Your task to perform on an android device: Go to location settings Image 0: 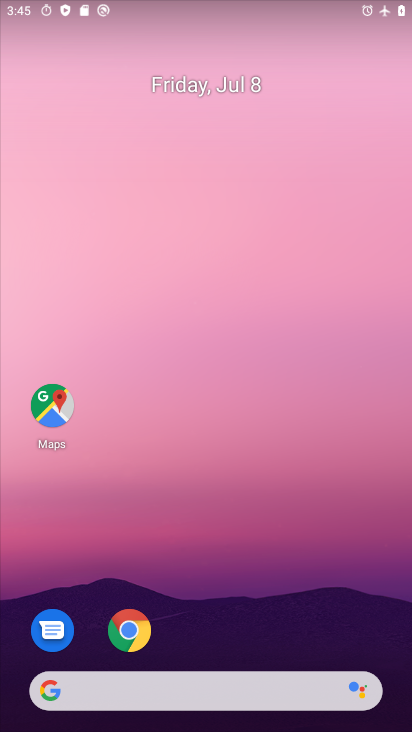
Step 0: drag from (296, 537) to (324, 200)
Your task to perform on an android device: Go to location settings Image 1: 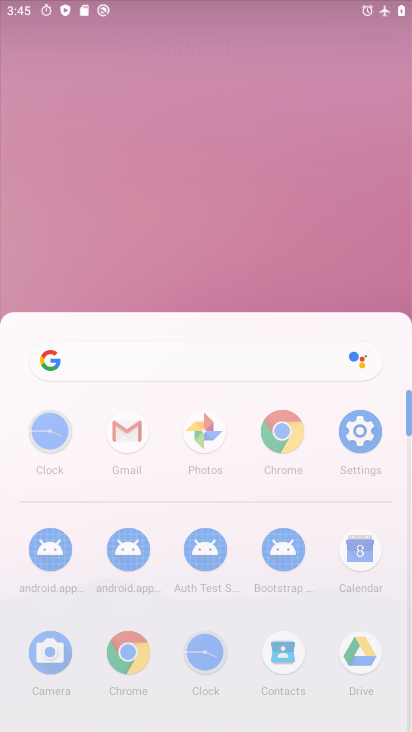
Step 1: drag from (245, 530) to (292, 296)
Your task to perform on an android device: Go to location settings Image 2: 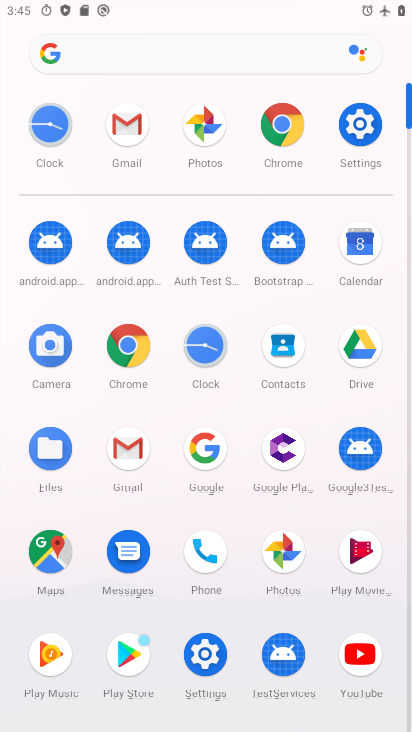
Step 2: click (363, 132)
Your task to perform on an android device: Go to location settings Image 3: 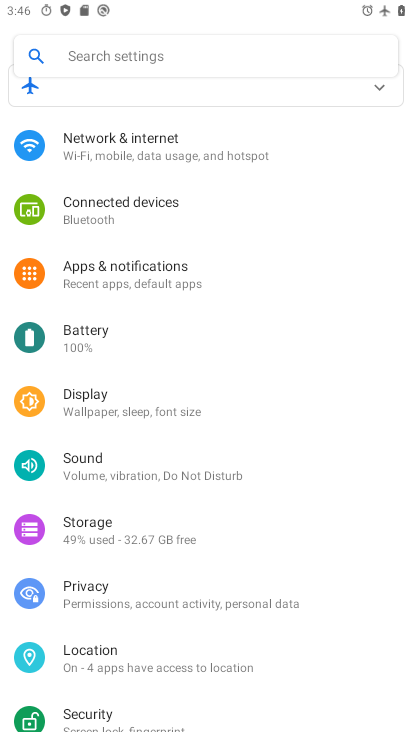
Step 3: click (107, 639)
Your task to perform on an android device: Go to location settings Image 4: 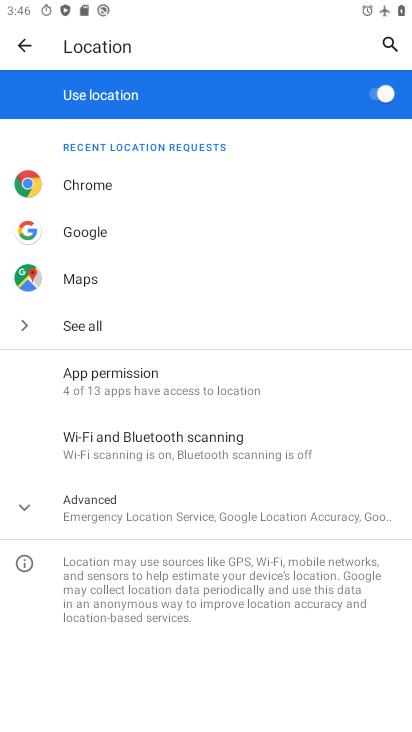
Step 4: task complete